Your task to perform on an android device: Go to ESPN.com Image 0: 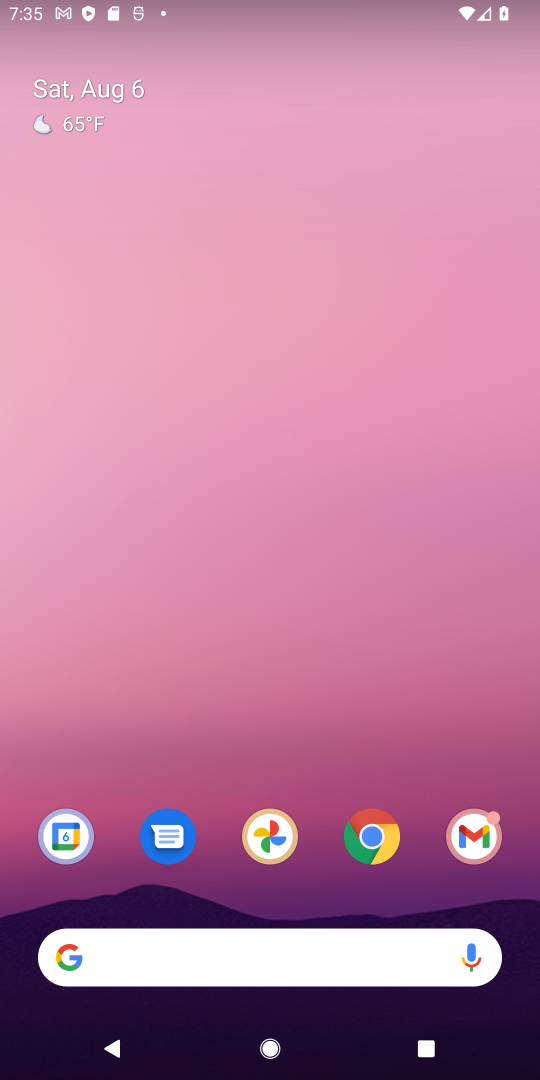
Step 0: drag from (437, 883) to (236, 68)
Your task to perform on an android device: Go to ESPN.com Image 1: 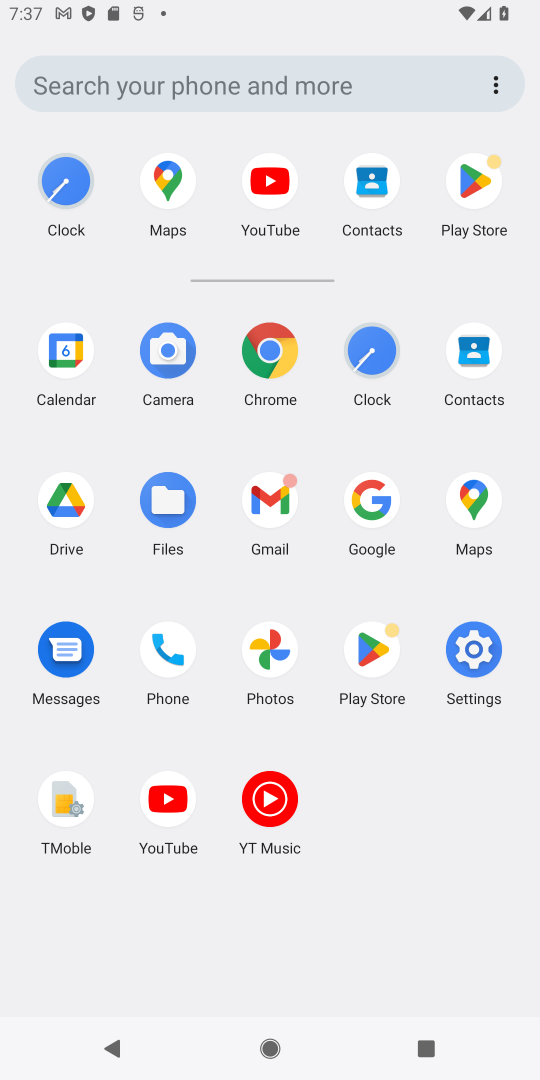
Step 1: click (359, 503)
Your task to perform on an android device: Go to ESPN.com Image 2: 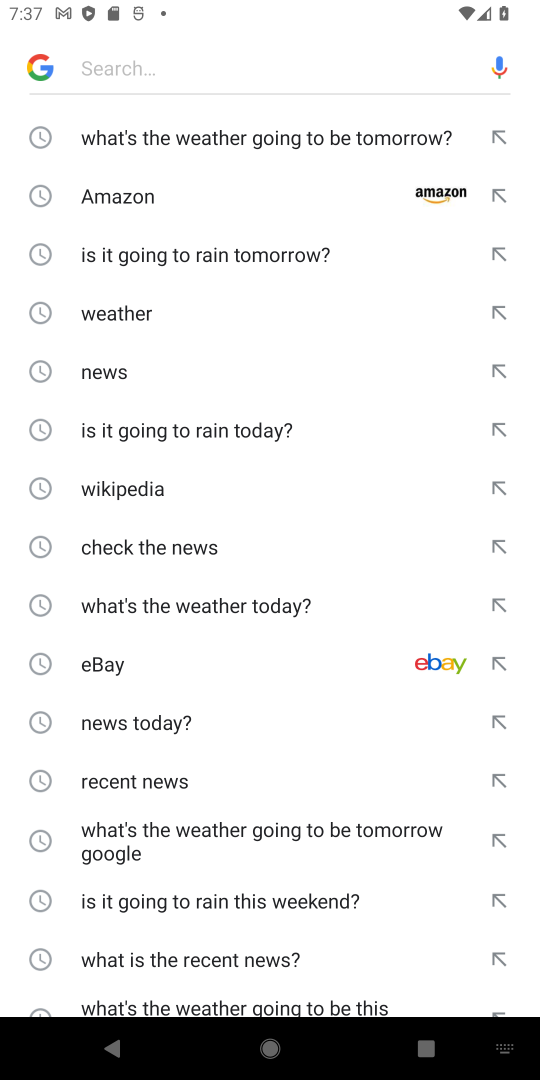
Step 2: drag from (163, 810) to (241, 267)
Your task to perform on an android device: Go to ESPN.com Image 3: 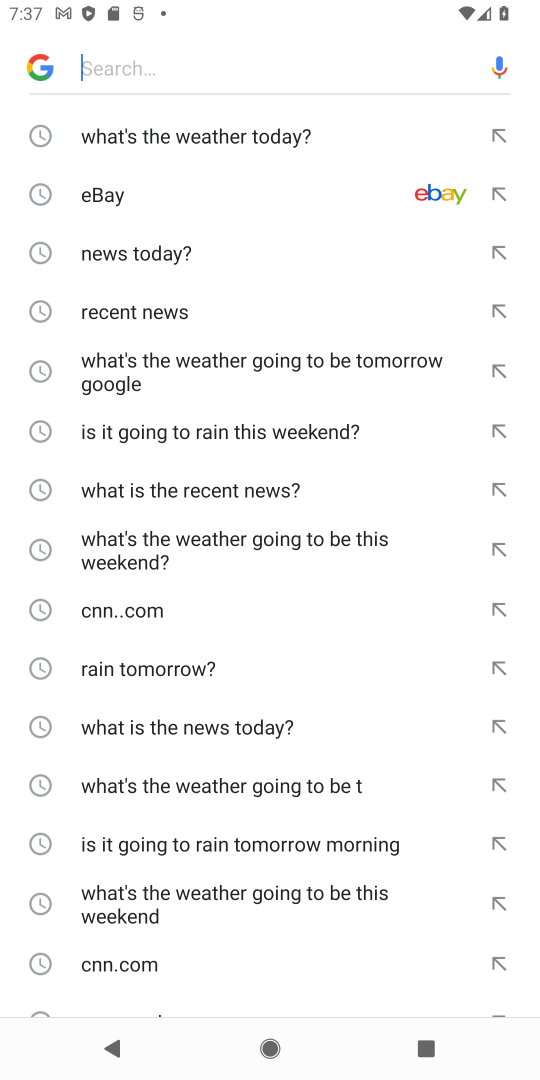
Step 3: drag from (183, 961) to (272, 366)
Your task to perform on an android device: Go to ESPN.com Image 4: 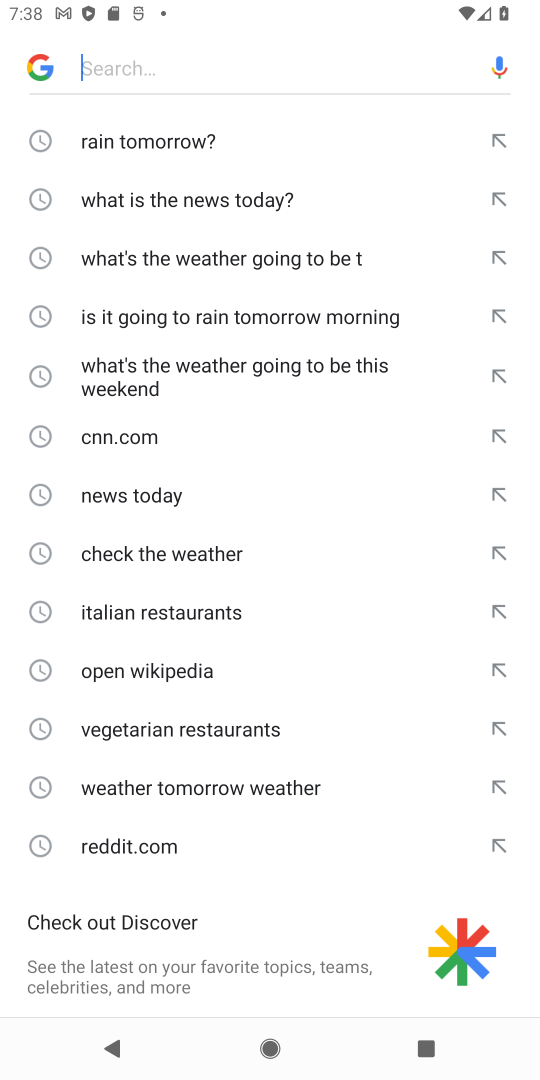
Step 4: type "ESPN.com"
Your task to perform on an android device: Go to ESPN.com Image 5: 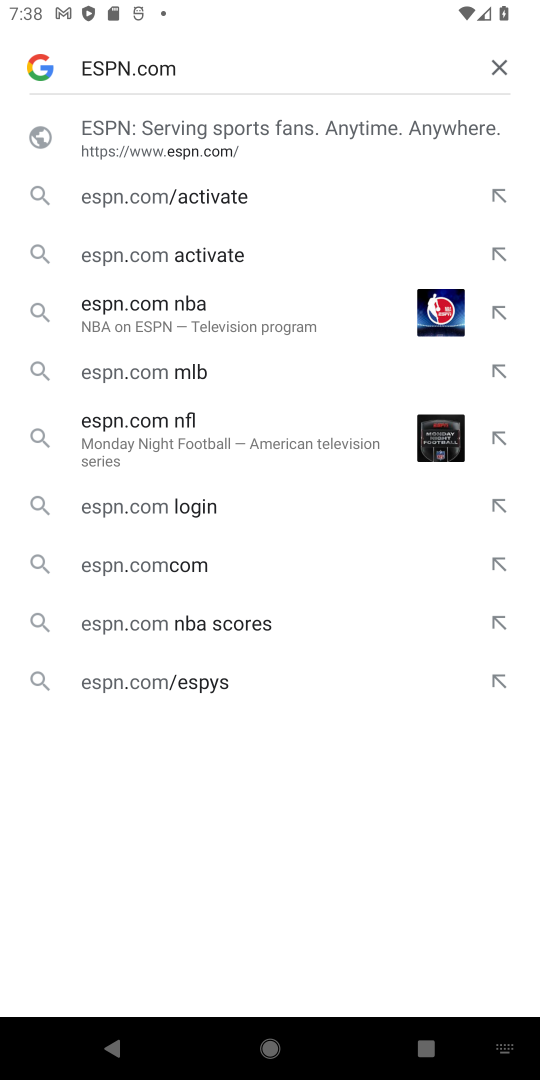
Step 5: click (136, 145)
Your task to perform on an android device: Go to ESPN.com Image 6: 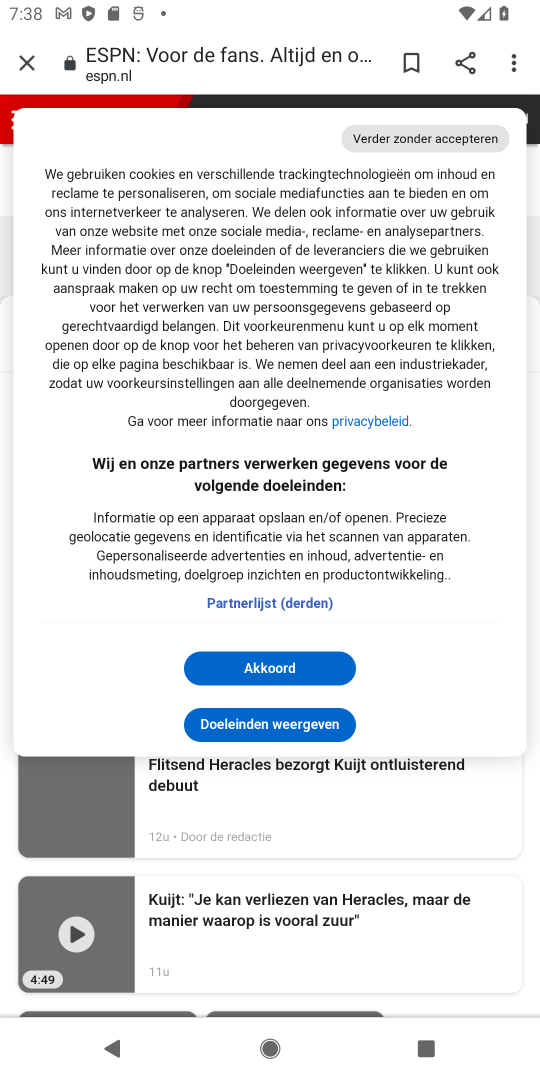
Step 6: task complete